Your task to perform on an android device: set default search engine in the chrome app Image 0: 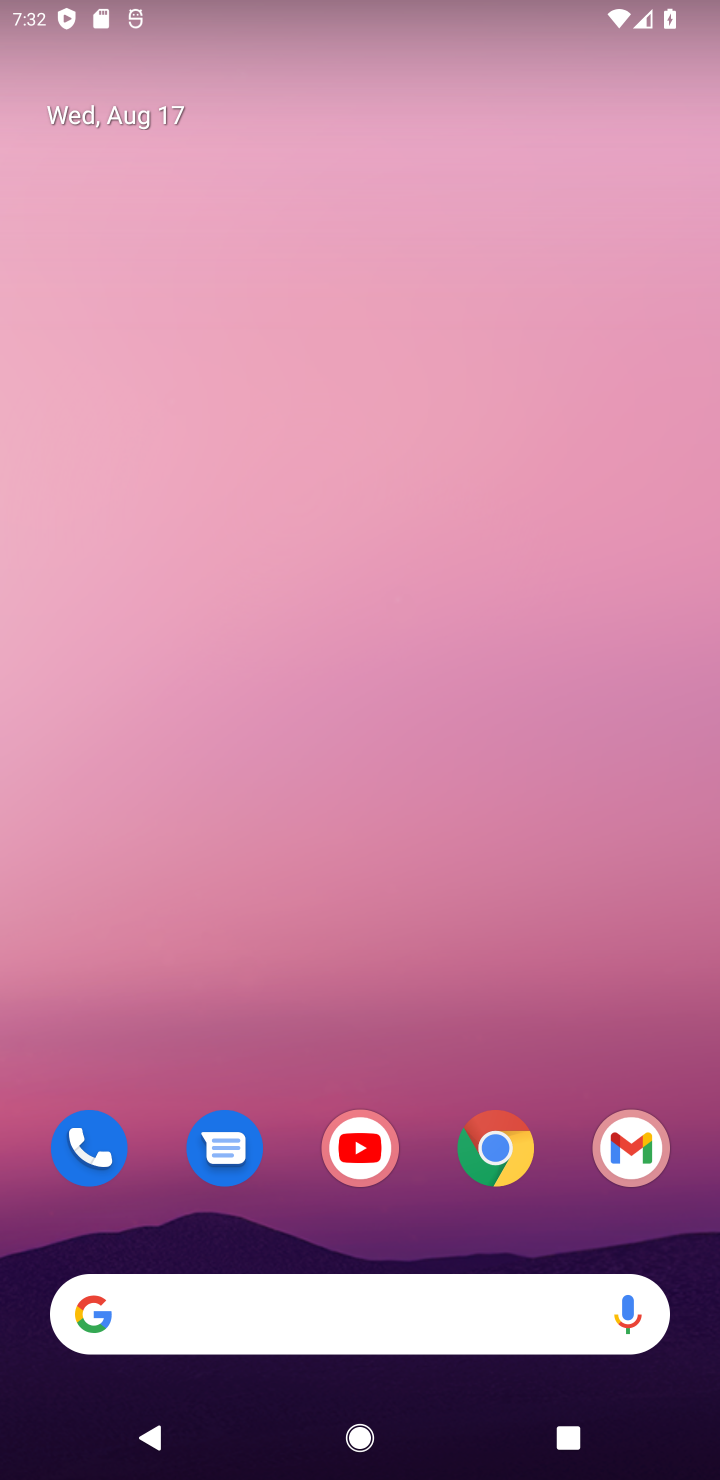
Step 0: drag from (421, 1249) to (400, 116)
Your task to perform on an android device: set default search engine in the chrome app Image 1: 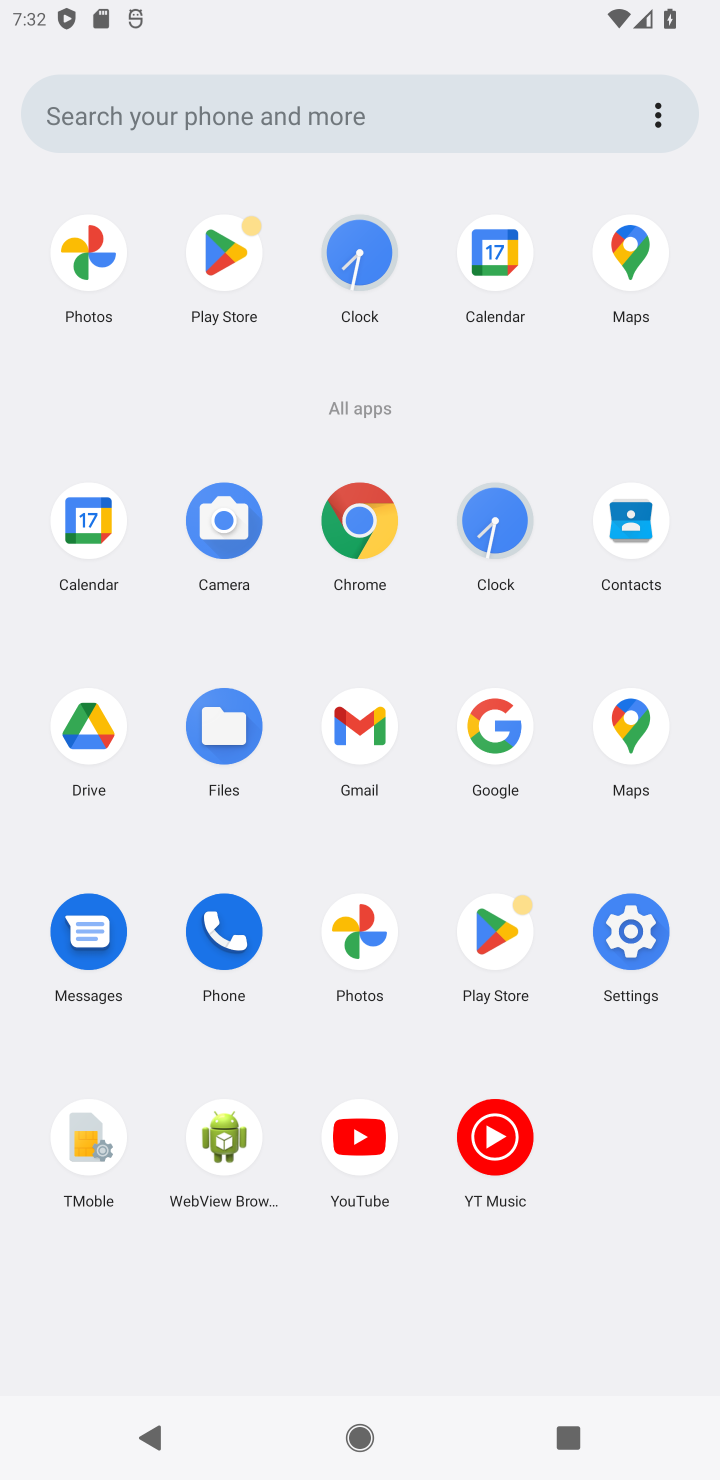
Step 1: click (326, 524)
Your task to perform on an android device: set default search engine in the chrome app Image 2: 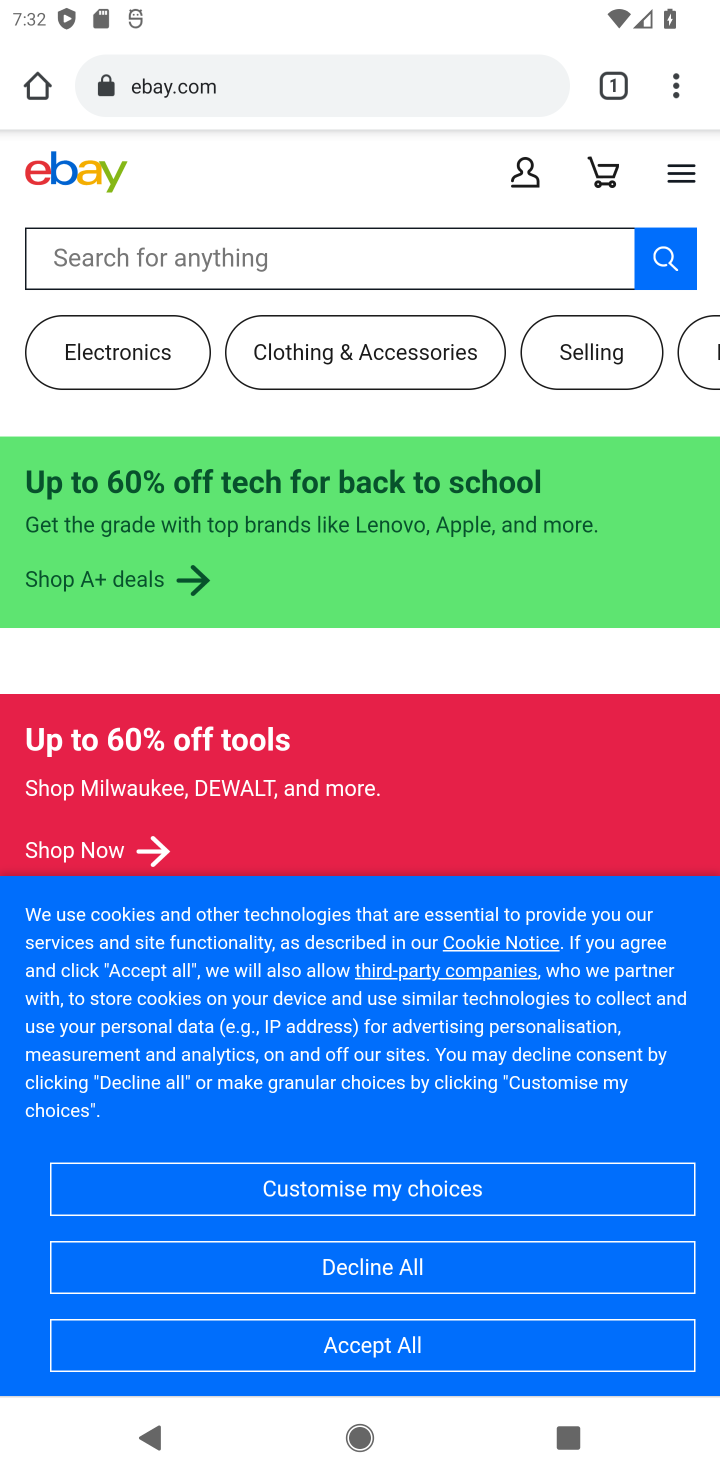
Step 2: click (679, 71)
Your task to perform on an android device: set default search engine in the chrome app Image 3: 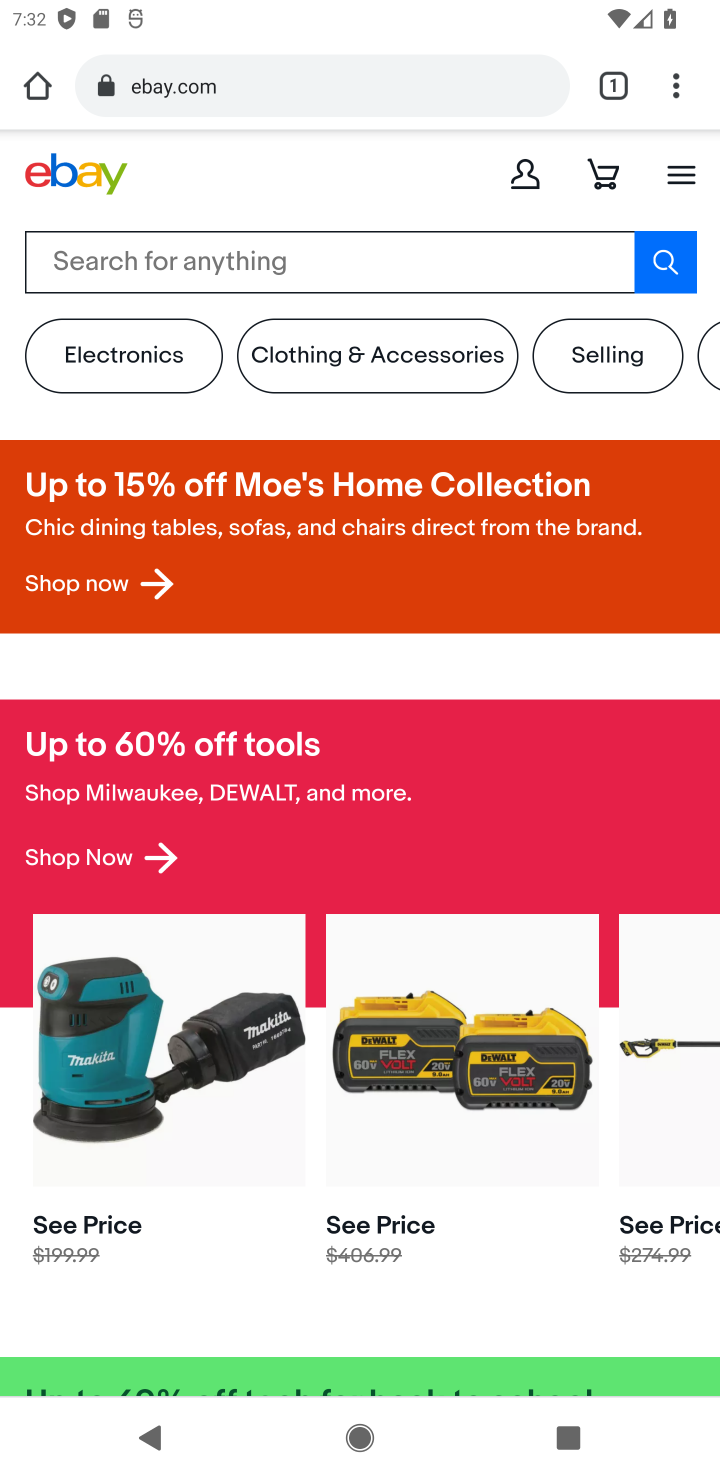
Step 3: click (679, 71)
Your task to perform on an android device: set default search engine in the chrome app Image 4: 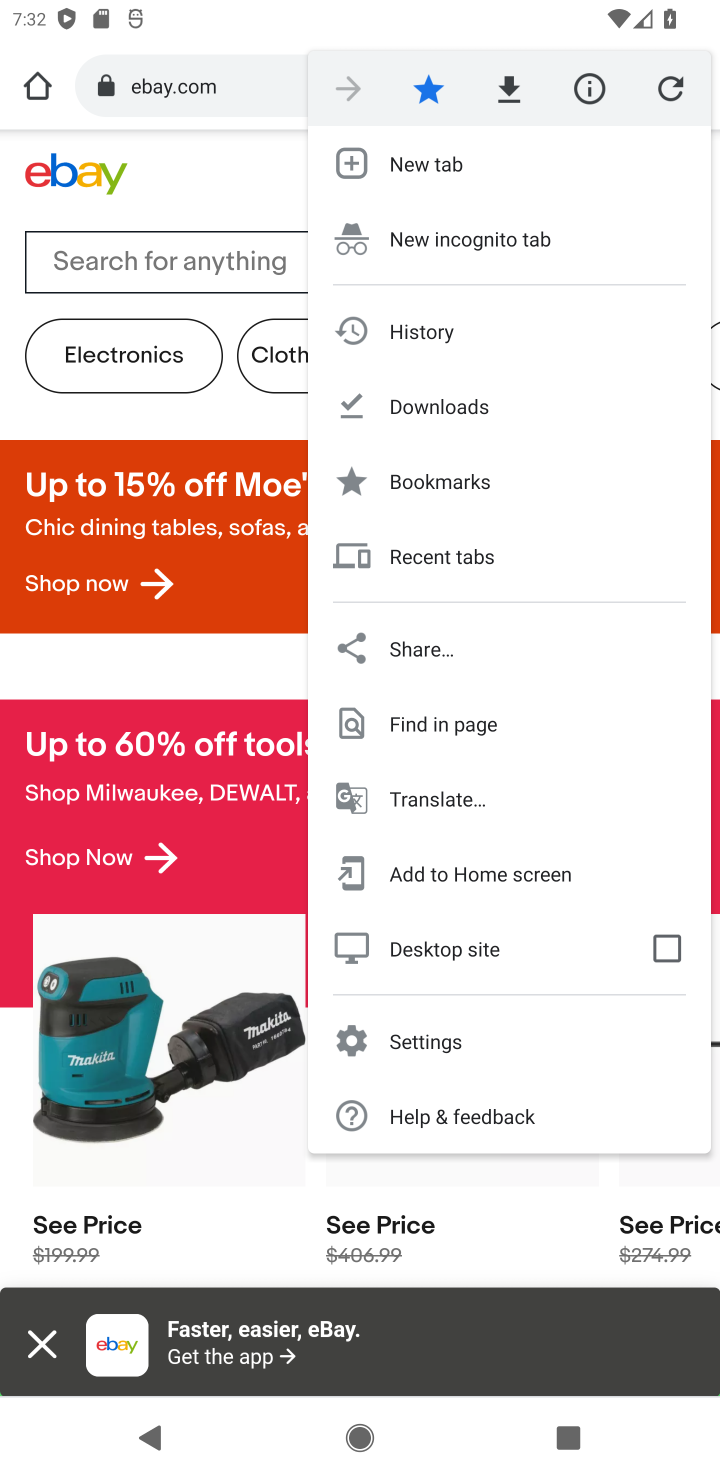
Step 4: click (439, 1047)
Your task to perform on an android device: set default search engine in the chrome app Image 5: 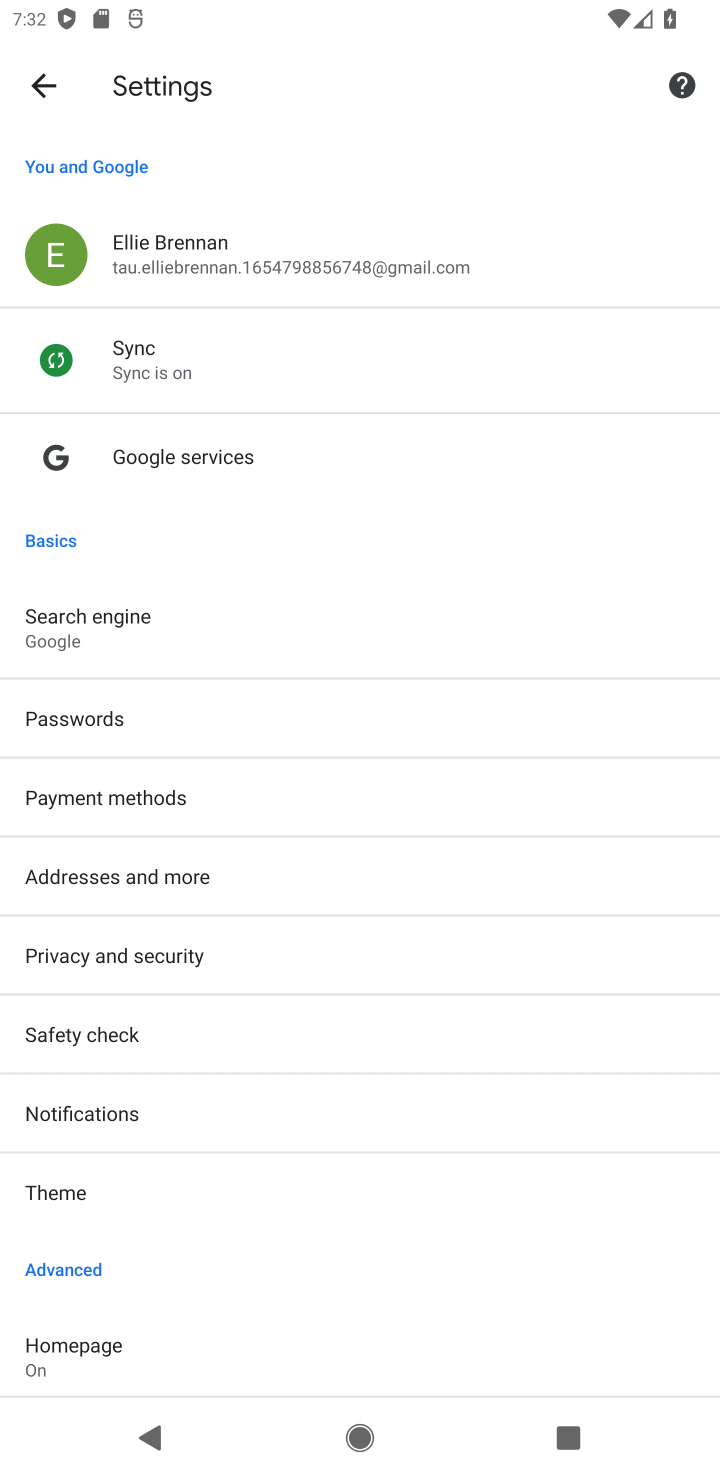
Step 5: click (99, 644)
Your task to perform on an android device: set default search engine in the chrome app Image 6: 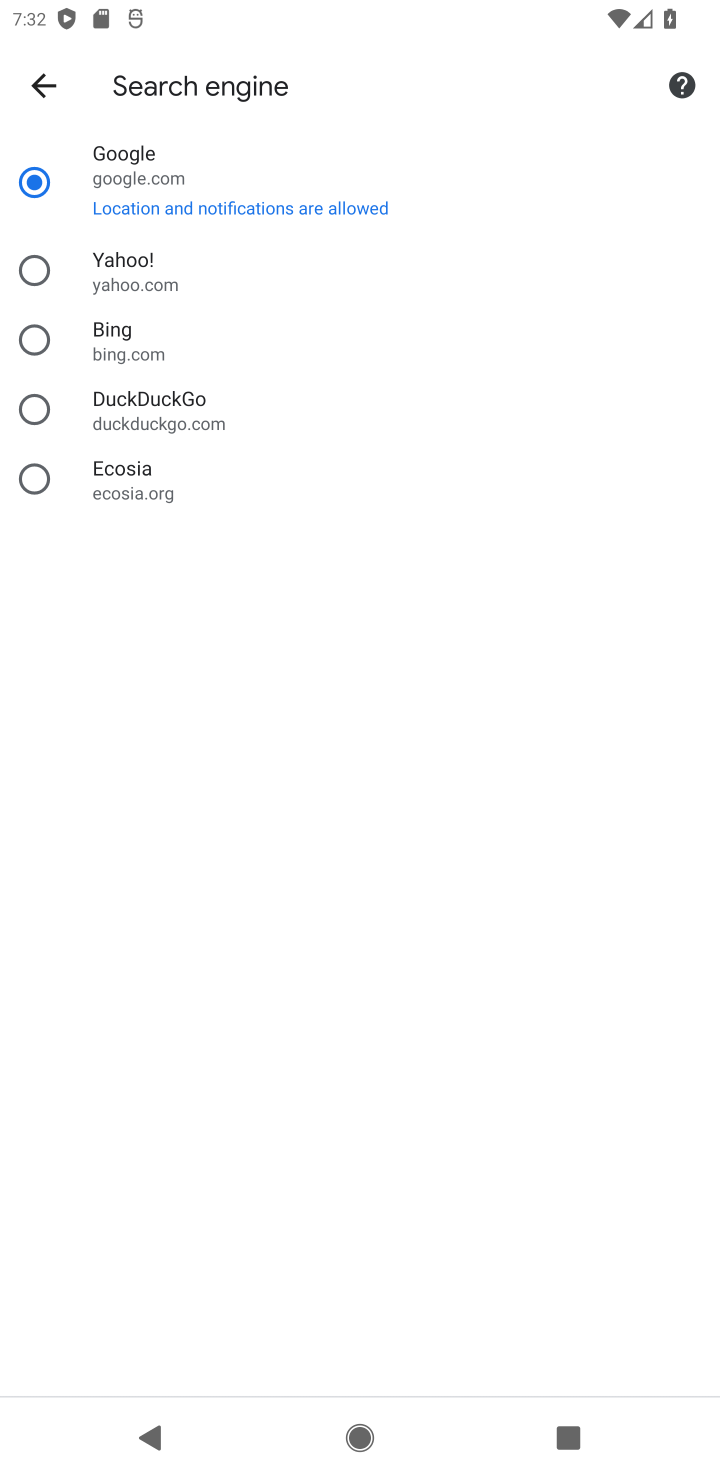
Step 6: task complete